Your task to perform on an android device: change your default location settings in chrome Image 0: 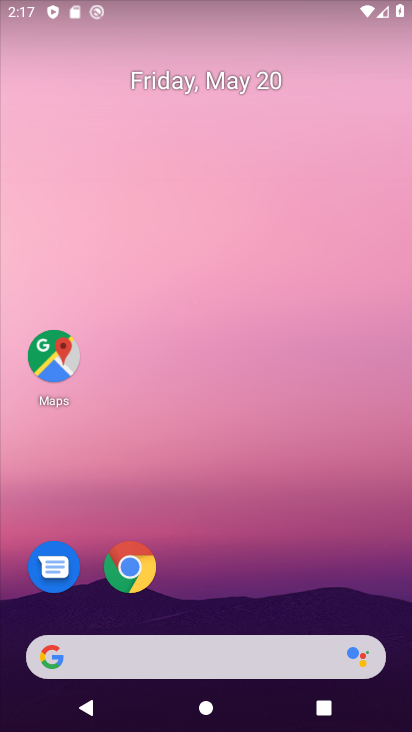
Step 0: drag from (179, 631) to (187, 203)
Your task to perform on an android device: change your default location settings in chrome Image 1: 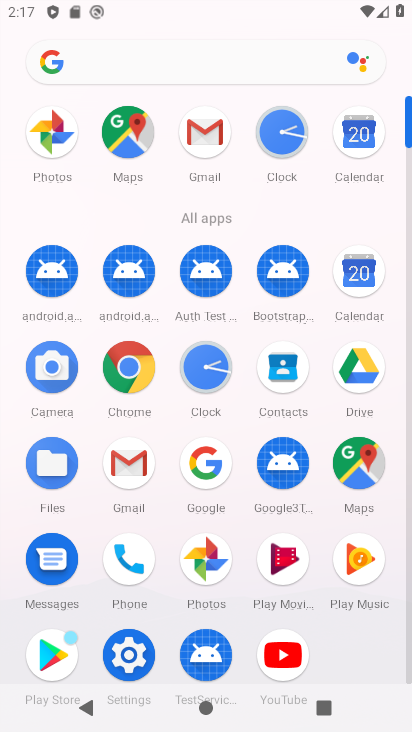
Step 1: click (129, 370)
Your task to perform on an android device: change your default location settings in chrome Image 2: 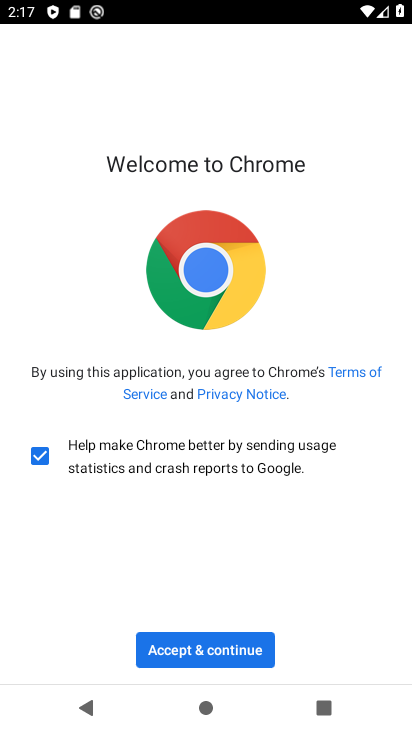
Step 2: click (191, 647)
Your task to perform on an android device: change your default location settings in chrome Image 3: 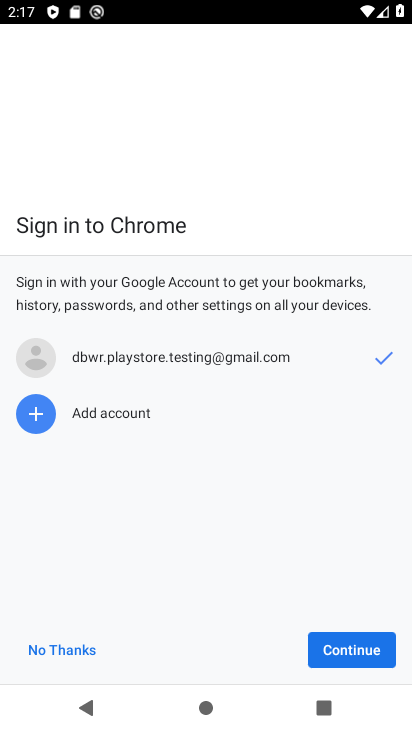
Step 3: click (355, 657)
Your task to perform on an android device: change your default location settings in chrome Image 4: 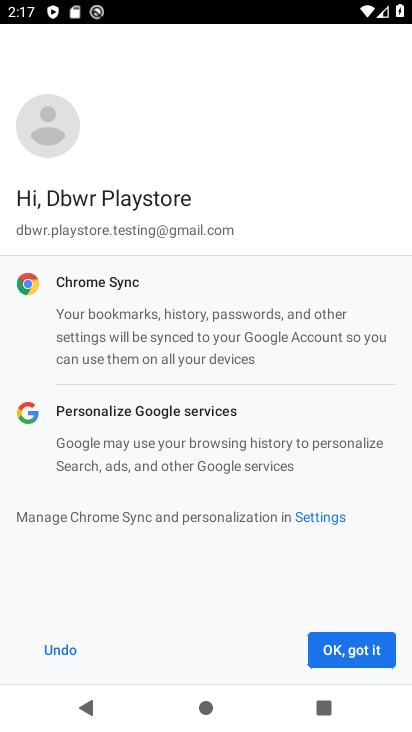
Step 4: click (352, 655)
Your task to perform on an android device: change your default location settings in chrome Image 5: 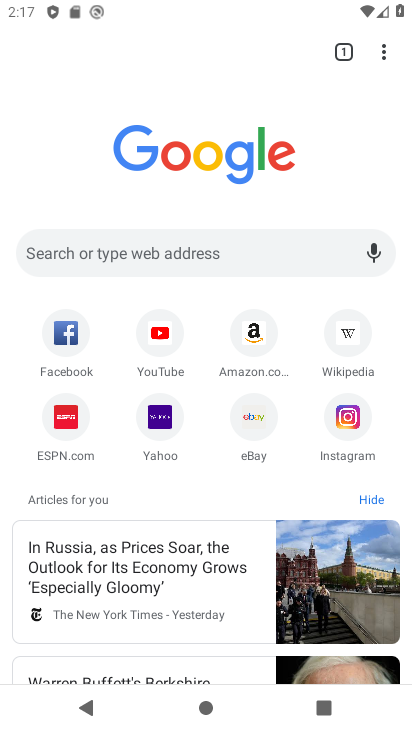
Step 5: click (385, 55)
Your task to perform on an android device: change your default location settings in chrome Image 6: 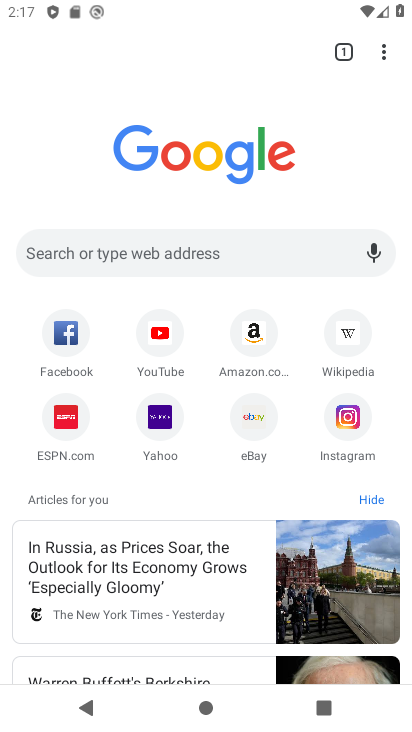
Step 6: click (377, 56)
Your task to perform on an android device: change your default location settings in chrome Image 7: 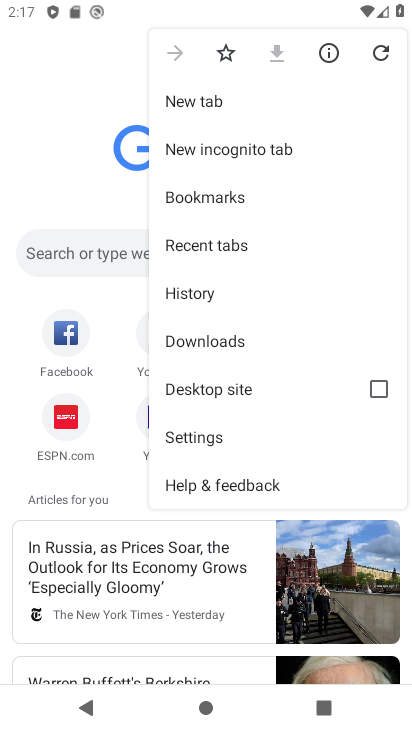
Step 7: click (218, 433)
Your task to perform on an android device: change your default location settings in chrome Image 8: 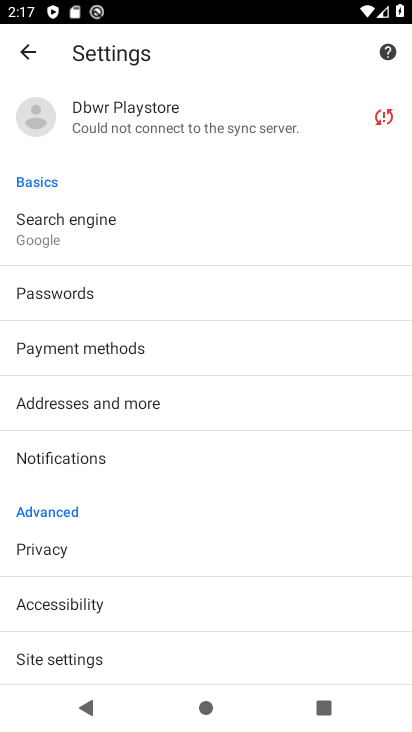
Step 8: drag from (109, 643) to (109, 280)
Your task to perform on an android device: change your default location settings in chrome Image 9: 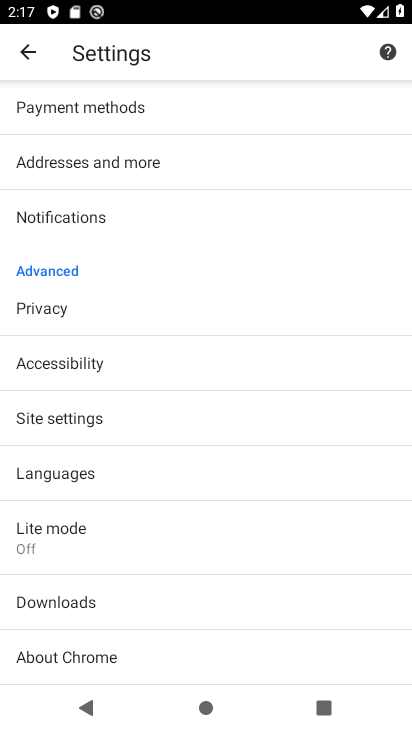
Step 9: drag from (86, 679) to (94, 412)
Your task to perform on an android device: change your default location settings in chrome Image 10: 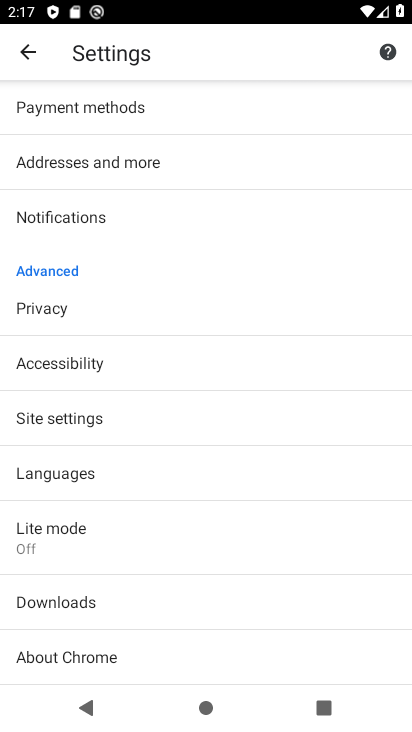
Step 10: drag from (89, 640) to (122, 298)
Your task to perform on an android device: change your default location settings in chrome Image 11: 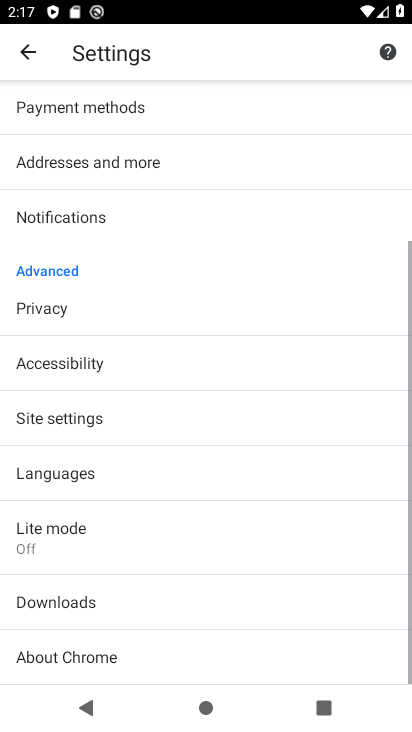
Step 11: drag from (106, 284) to (116, 652)
Your task to perform on an android device: change your default location settings in chrome Image 12: 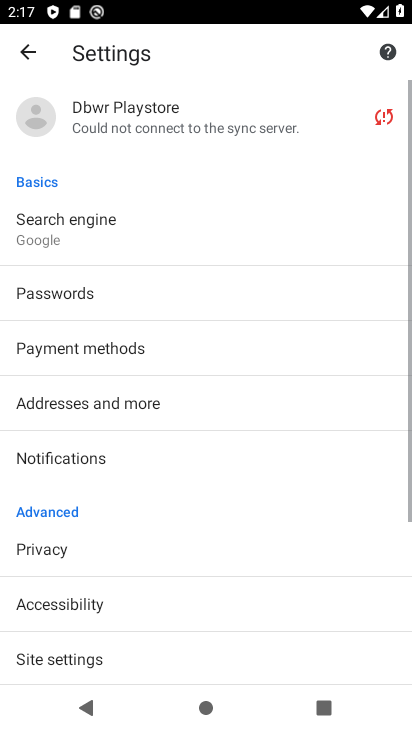
Step 12: drag from (160, 222) to (175, 557)
Your task to perform on an android device: change your default location settings in chrome Image 13: 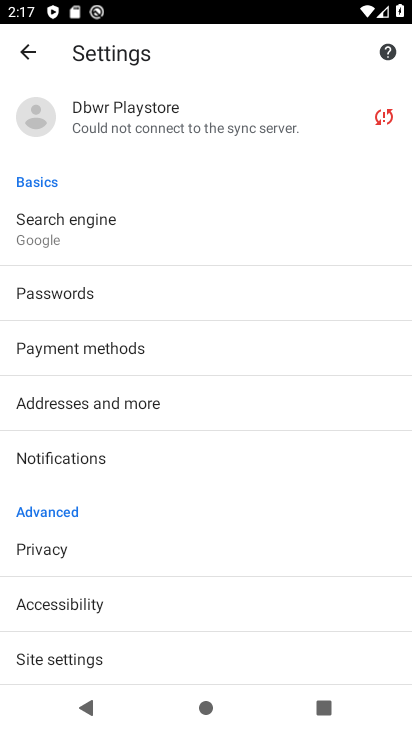
Step 13: drag from (80, 636) to (92, 277)
Your task to perform on an android device: change your default location settings in chrome Image 14: 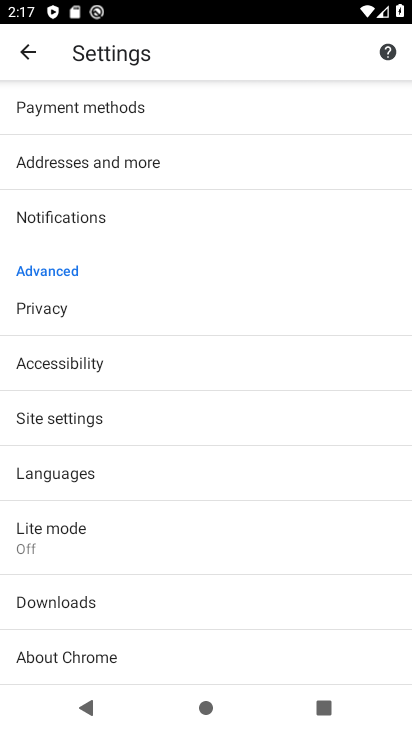
Step 14: click (47, 427)
Your task to perform on an android device: change your default location settings in chrome Image 15: 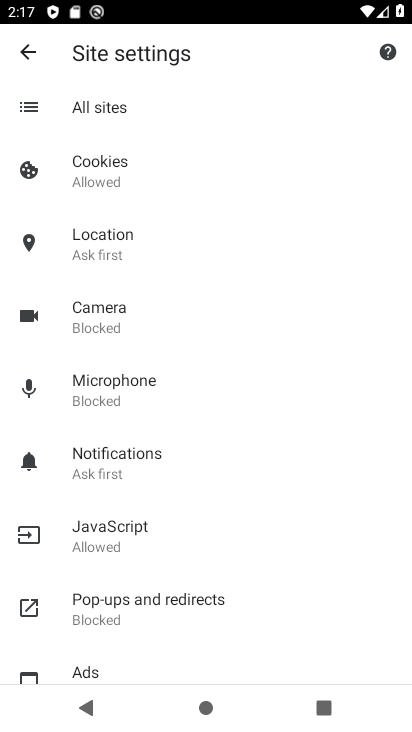
Step 15: click (96, 261)
Your task to perform on an android device: change your default location settings in chrome Image 16: 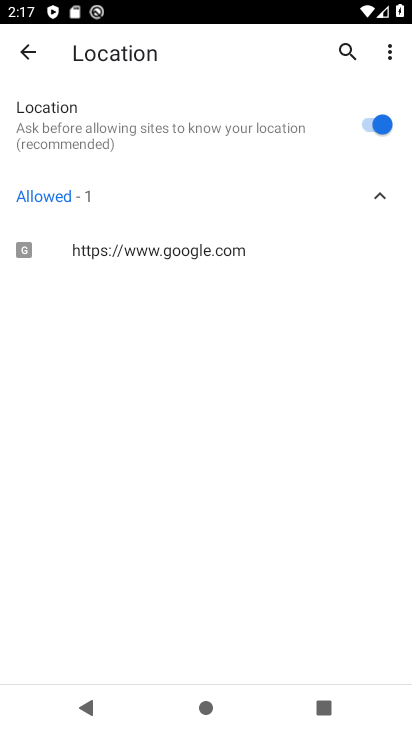
Step 16: click (366, 119)
Your task to perform on an android device: change your default location settings in chrome Image 17: 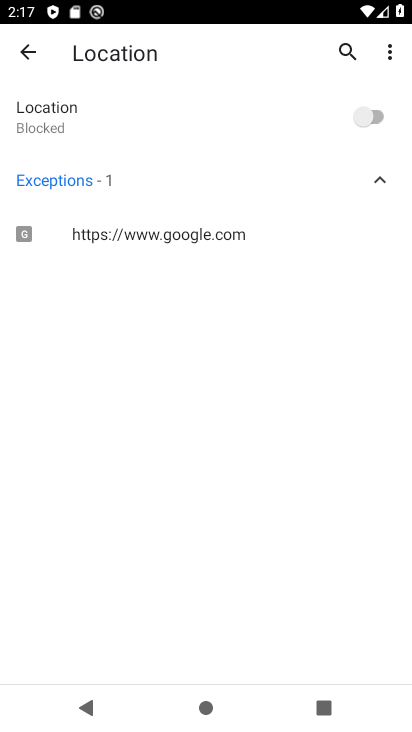
Step 17: task complete